Your task to perform on an android device: snooze an email in the gmail app Image 0: 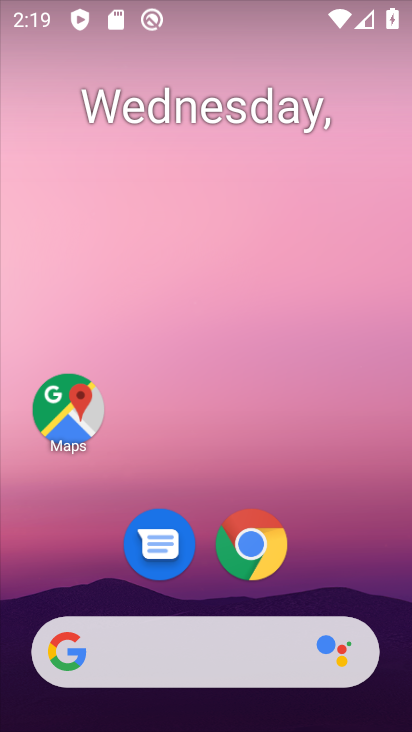
Step 0: drag from (212, 478) to (312, 3)
Your task to perform on an android device: snooze an email in the gmail app Image 1: 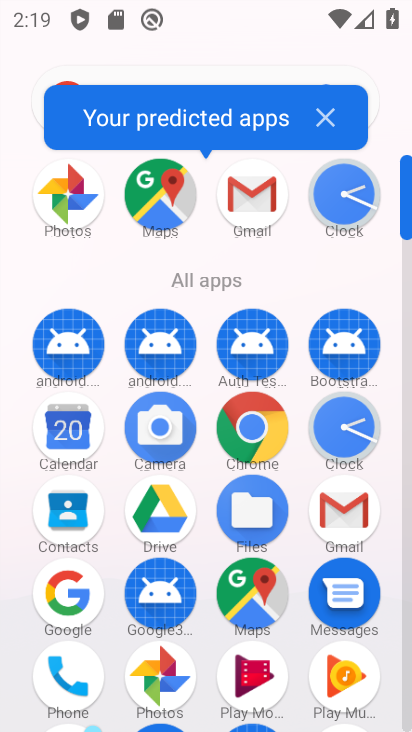
Step 1: click (349, 514)
Your task to perform on an android device: snooze an email in the gmail app Image 2: 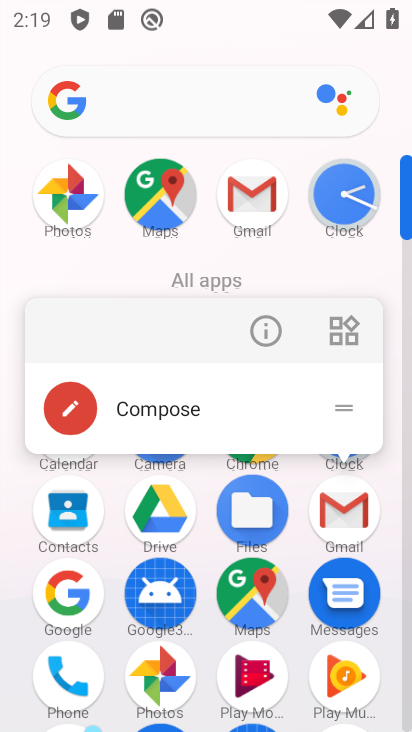
Step 2: click (355, 518)
Your task to perform on an android device: snooze an email in the gmail app Image 3: 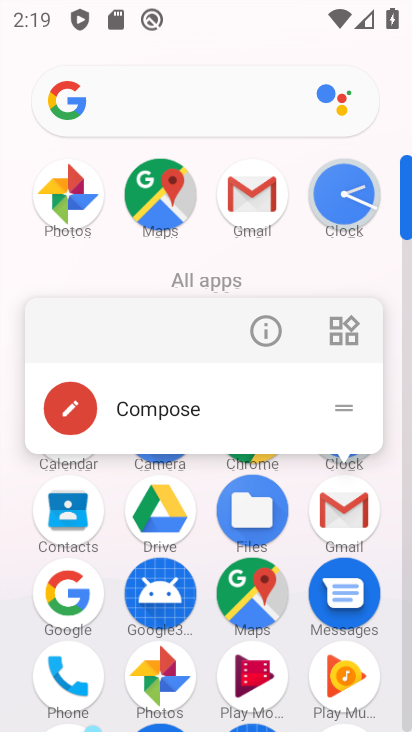
Step 3: click (350, 531)
Your task to perform on an android device: snooze an email in the gmail app Image 4: 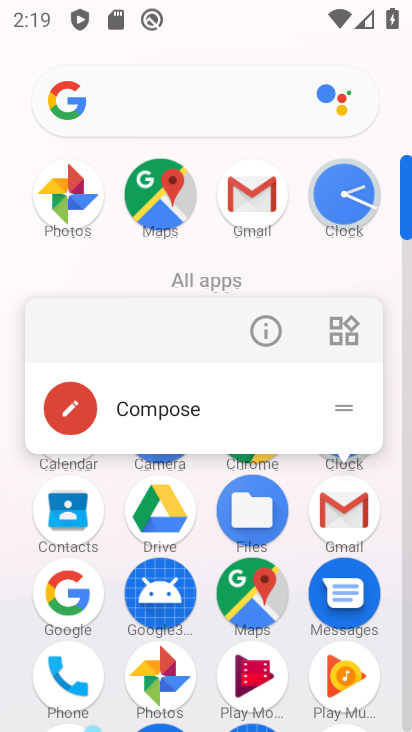
Step 4: click (362, 499)
Your task to perform on an android device: snooze an email in the gmail app Image 5: 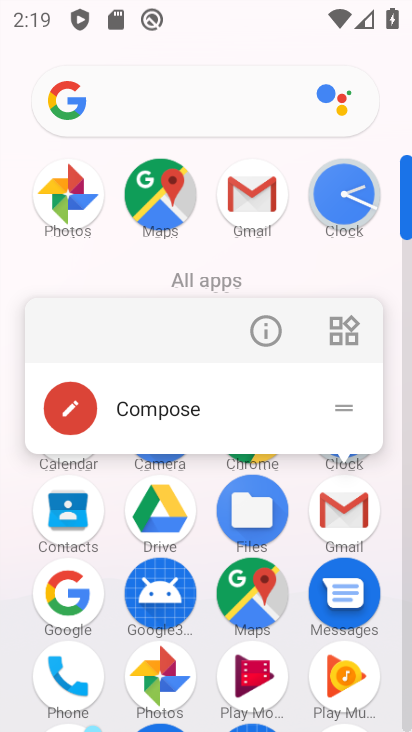
Step 5: click (356, 512)
Your task to perform on an android device: snooze an email in the gmail app Image 6: 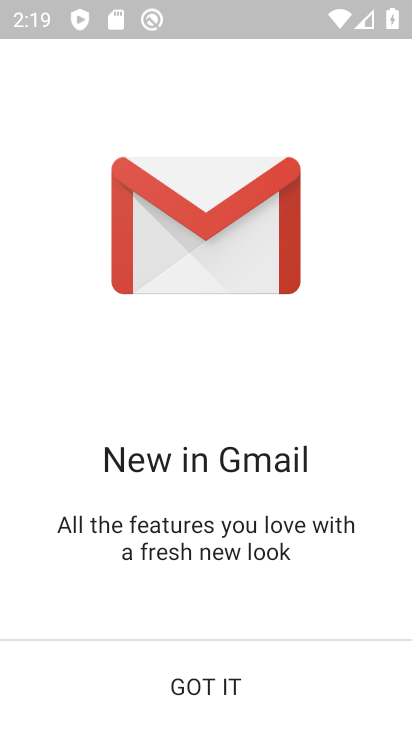
Step 6: click (212, 701)
Your task to perform on an android device: snooze an email in the gmail app Image 7: 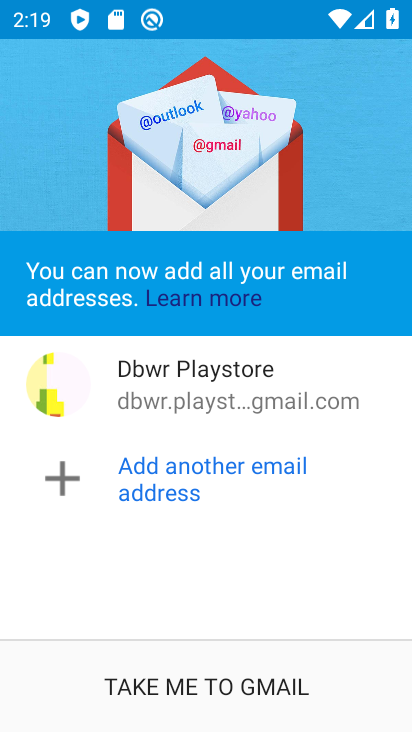
Step 7: click (235, 675)
Your task to perform on an android device: snooze an email in the gmail app Image 8: 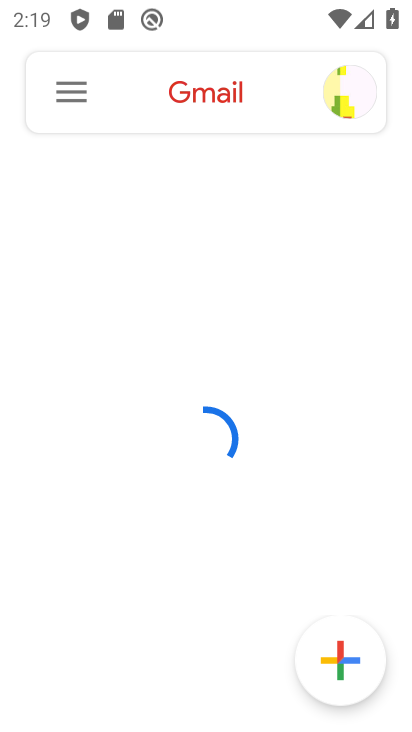
Step 8: click (65, 95)
Your task to perform on an android device: snooze an email in the gmail app Image 9: 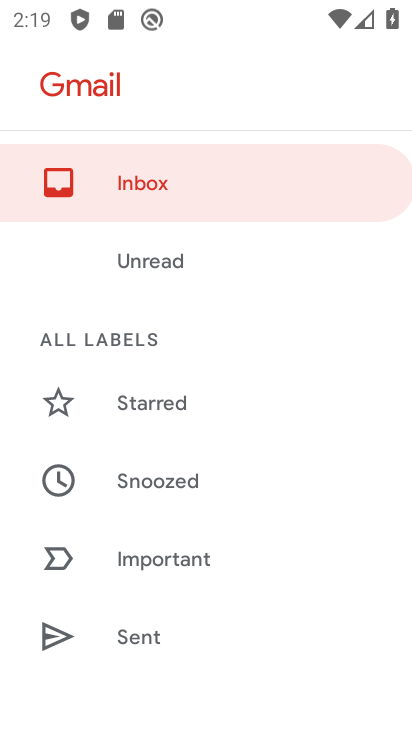
Step 9: drag from (188, 600) to (303, 315)
Your task to perform on an android device: snooze an email in the gmail app Image 10: 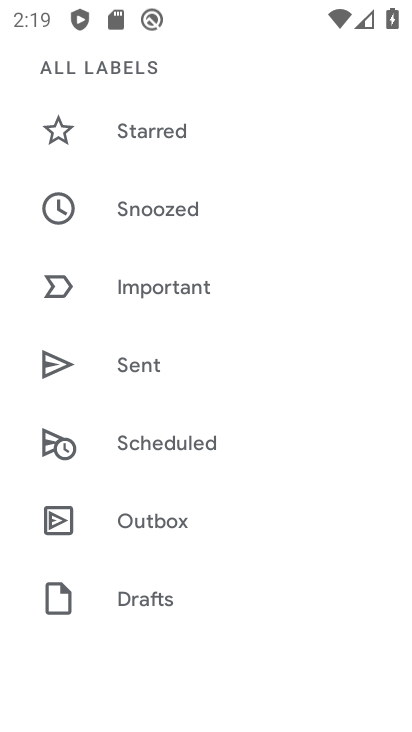
Step 10: click (220, 209)
Your task to perform on an android device: snooze an email in the gmail app Image 11: 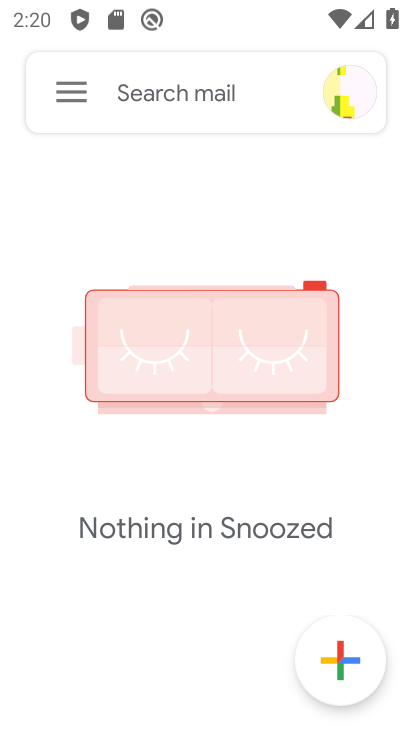
Step 11: click (48, 90)
Your task to perform on an android device: snooze an email in the gmail app Image 12: 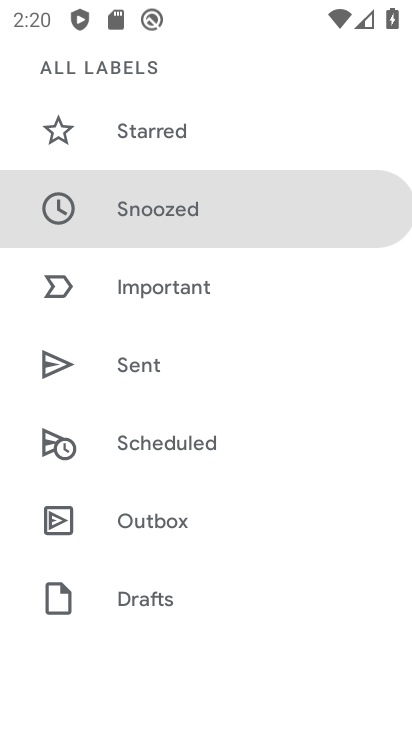
Step 12: drag from (165, 568) to (329, 184)
Your task to perform on an android device: snooze an email in the gmail app Image 13: 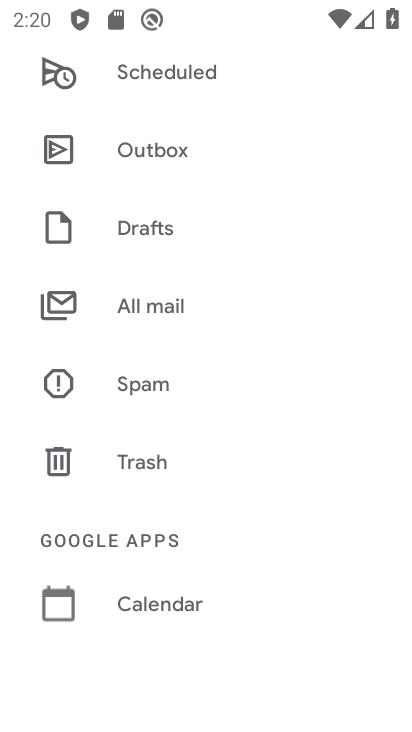
Step 13: click (198, 295)
Your task to perform on an android device: snooze an email in the gmail app Image 14: 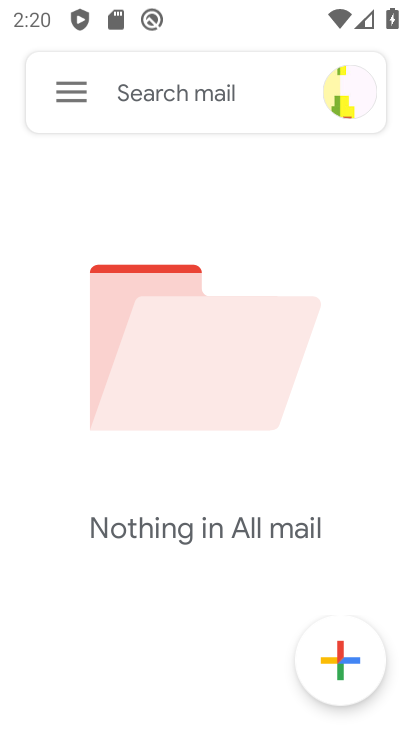
Step 14: task complete